Your task to perform on an android device: check out phone information Image 0: 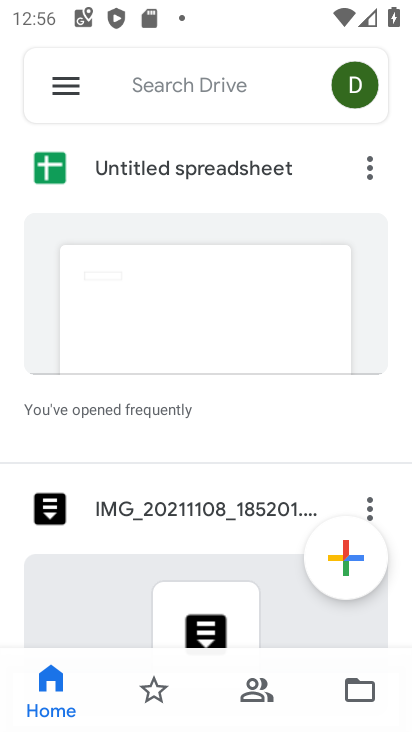
Step 0: press home button
Your task to perform on an android device: check out phone information Image 1: 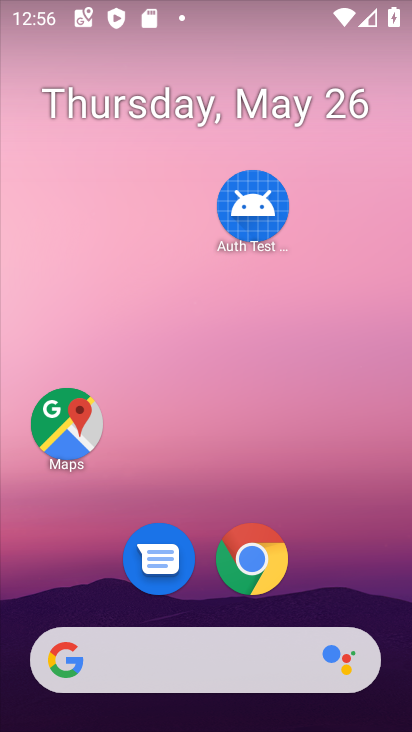
Step 1: drag from (357, 564) to (358, 154)
Your task to perform on an android device: check out phone information Image 2: 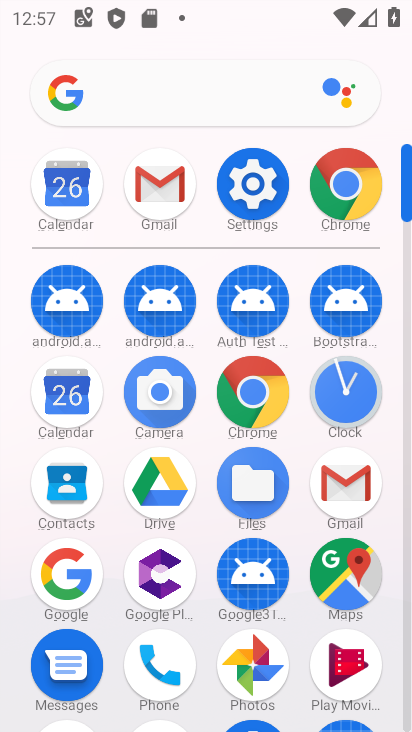
Step 2: click (264, 207)
Your task to perform on an android device: check out phone information Image 3: 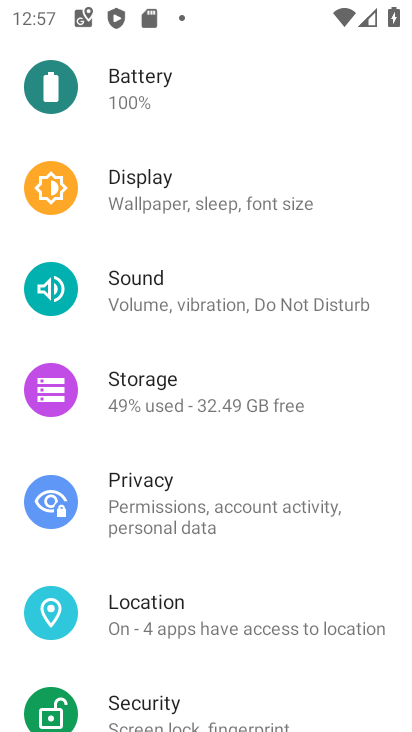
Step 3: drag from (198, 622) to (276, 160)
Your task to perform on an android device: check out phone information Image 4: 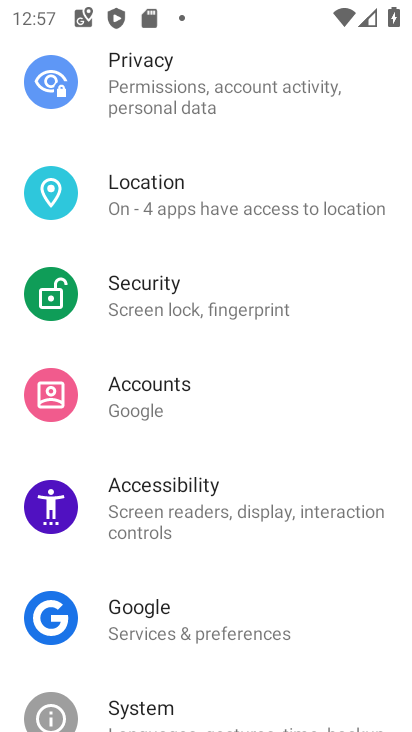
Step 4: drag from (258, 706) to (248, 268)
Your task to perform on an android device: check out phone information Image 5: 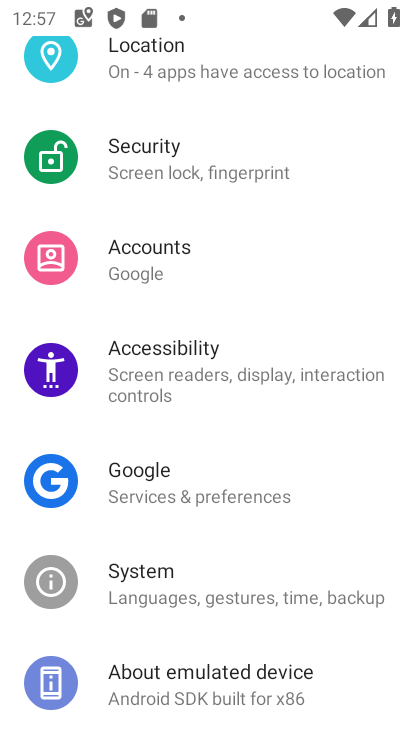
Step 5: drag from (249, 677) to (243, 362)
Your task to perform on an android device: check out phone information Image 6: 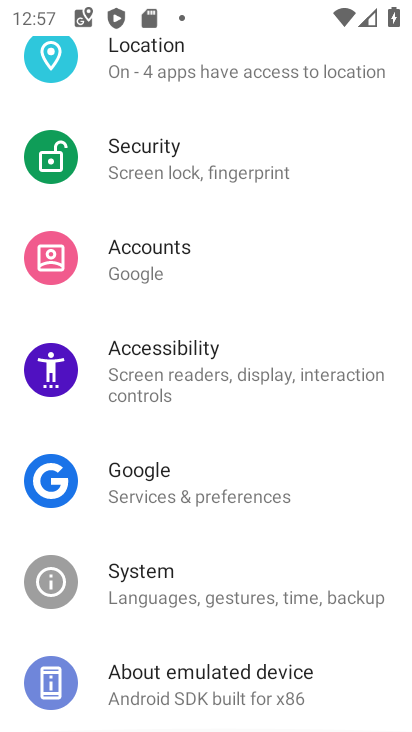
Step 6: click (214, 664)
Your task to perform on an android device: check out phone information Image 7: 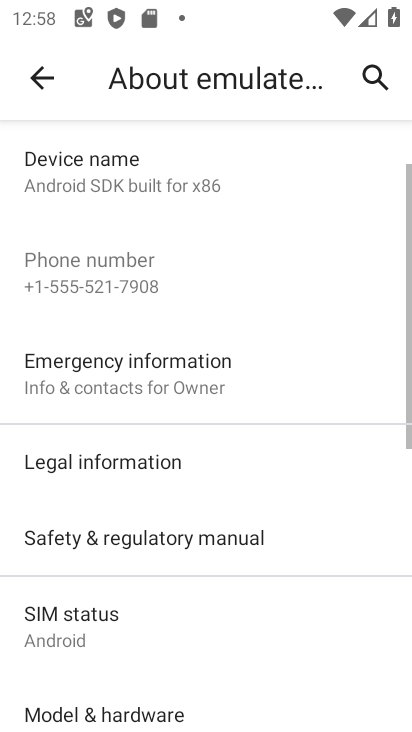
Step 7: task complete